Your task to perform on an android device: turn on notifications settings in the gmail app Image 0: 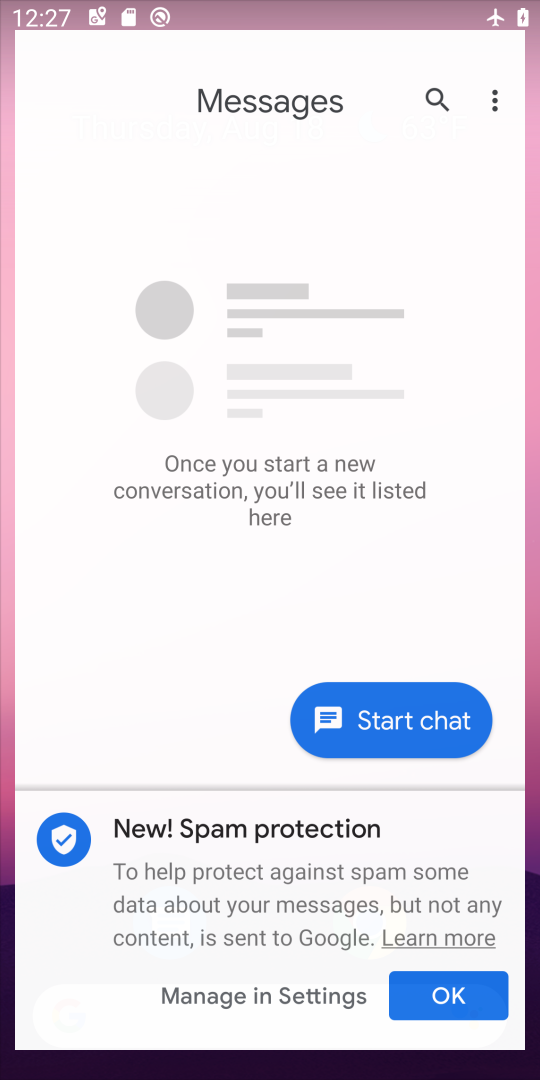
Step 0: press home button
Your task to perform on an android device: turn on notifications settings in the gmail app Image 1: 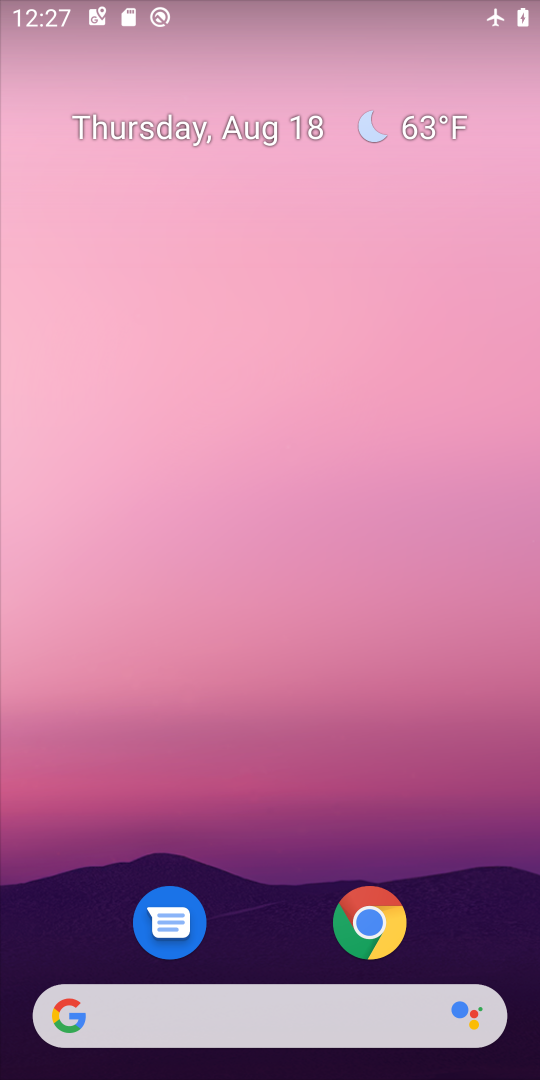
Step 1: drag from (249, 897) to (230, 318)
Your task to perform on an android device: turn on notifications settings in the gmail app Image 2: 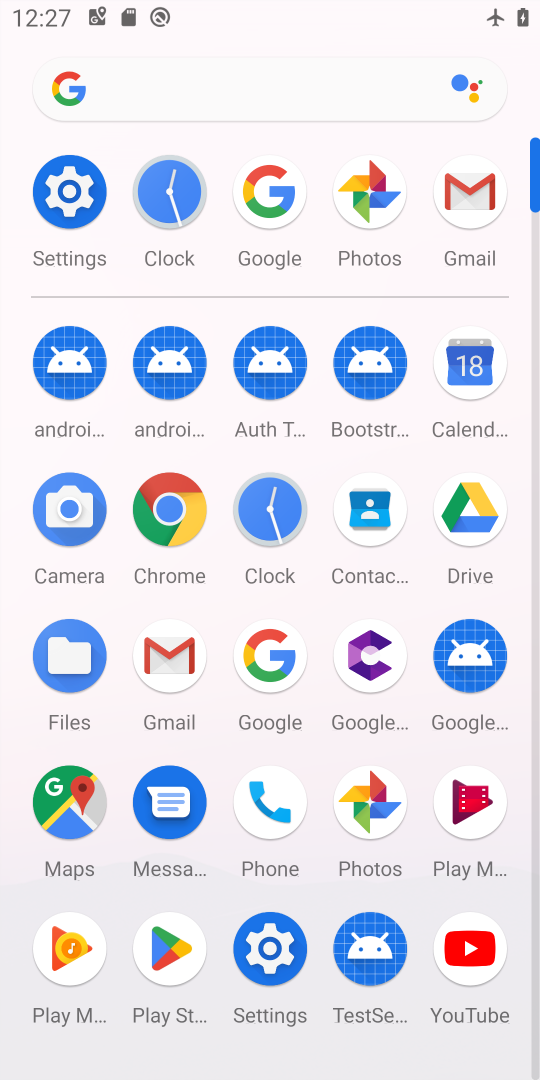
Step 2: click (166, 659)
Your task to perform on an android device: turn on notifications settings in the gmail app Image 3: 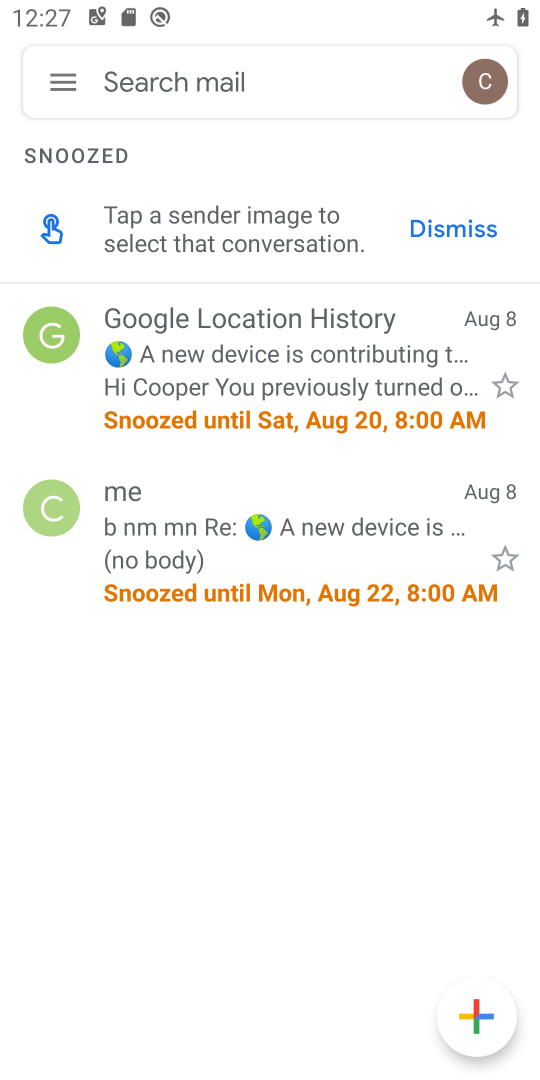
Step 3: click (61, 82)
Your task to perform on an android device: turn on notifications settings in the gmail app Image 4: 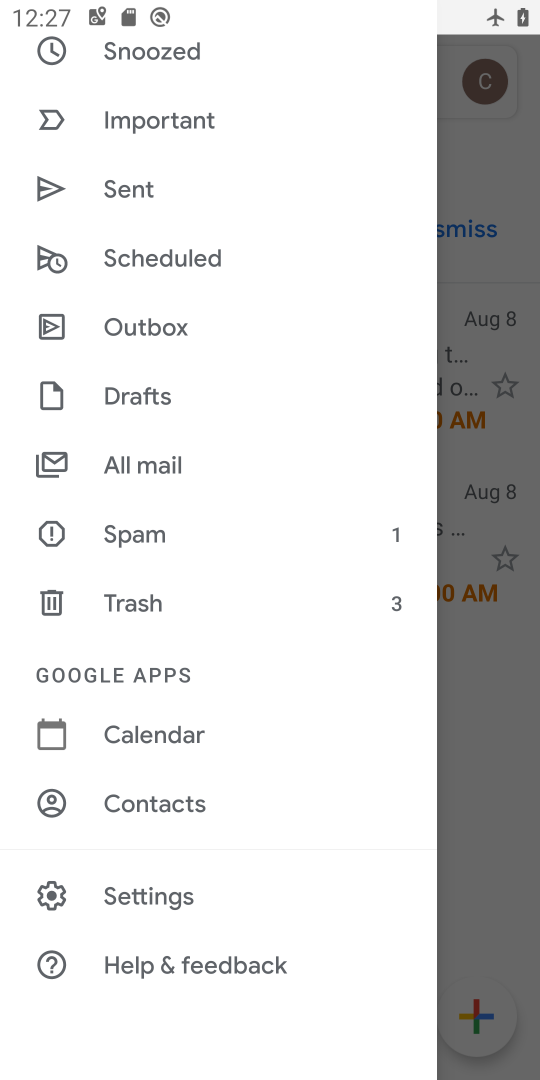
Step 4: click (160, 889)
Your task to perform on an android device: turn on notifications settings in the gmail app Image 5: 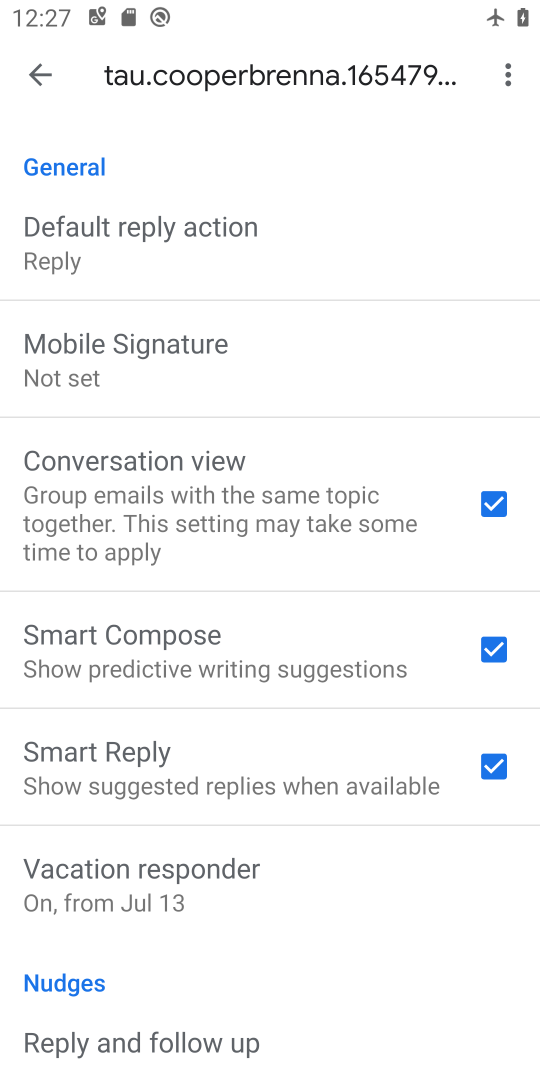
Step 5: click (44, 74)
Your task to perform on an android device: turn on notifications settings in the gmail app Image 6: 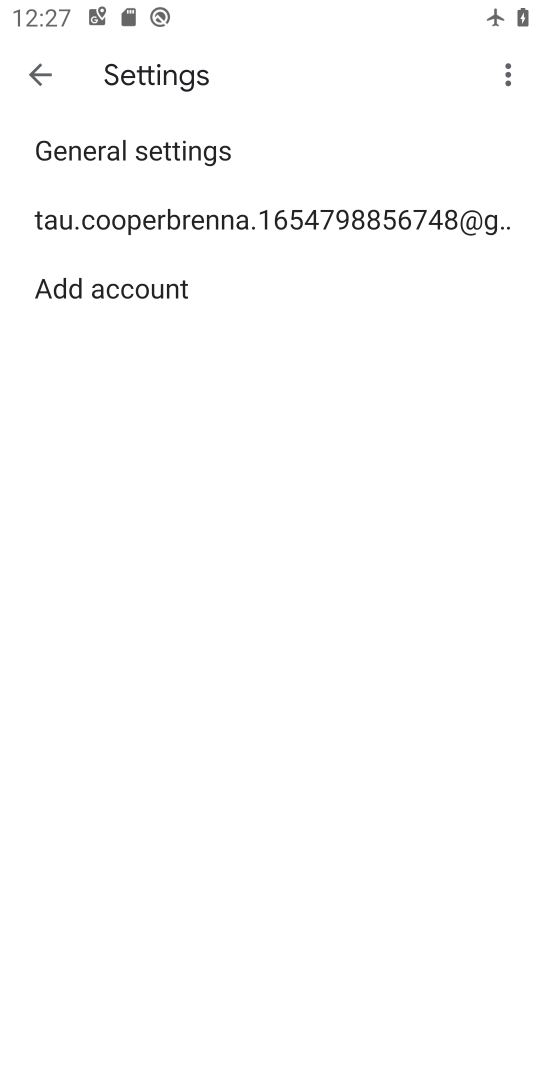
Step 6: click (126, 143)
Your task to perform on an android device: turn on notifications settings in the gmail app Image 7: 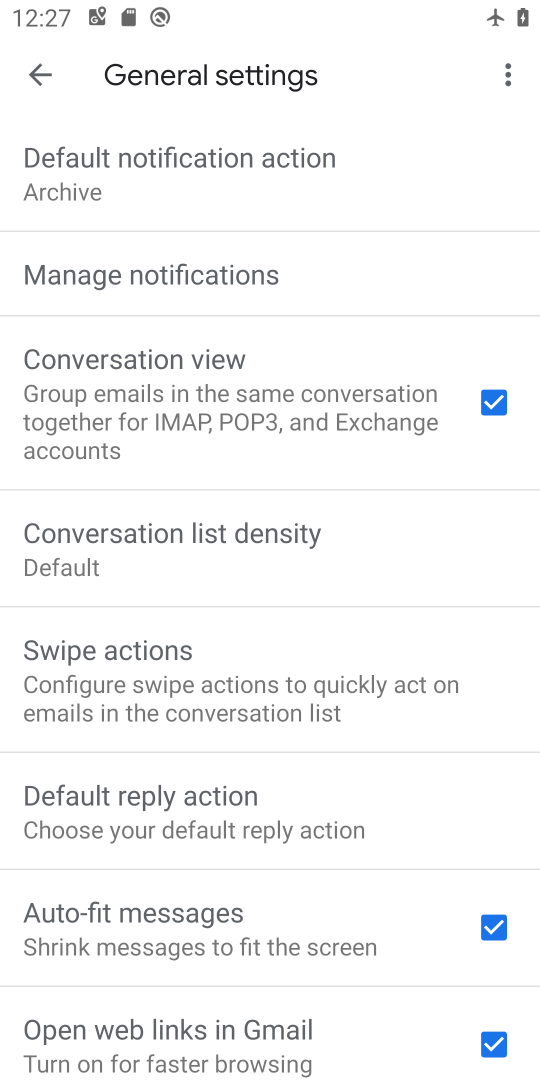
Step 7: click (180, 278)
Your task to perform on an android device: turn on notifications settings in the gmail app Image 8: 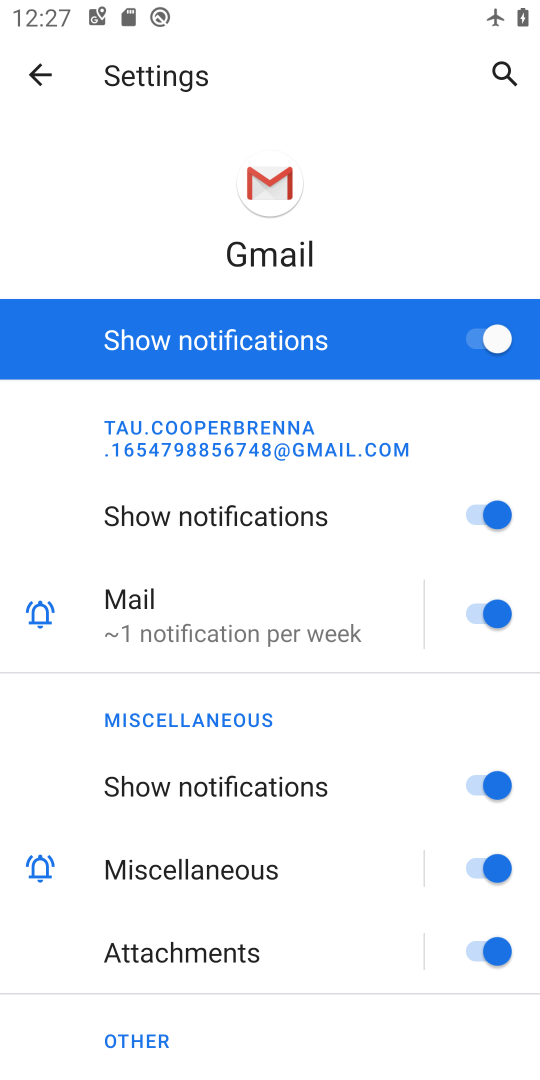
Step 8: task complete